Your task to perform on an android device: Check the weather Image 0: 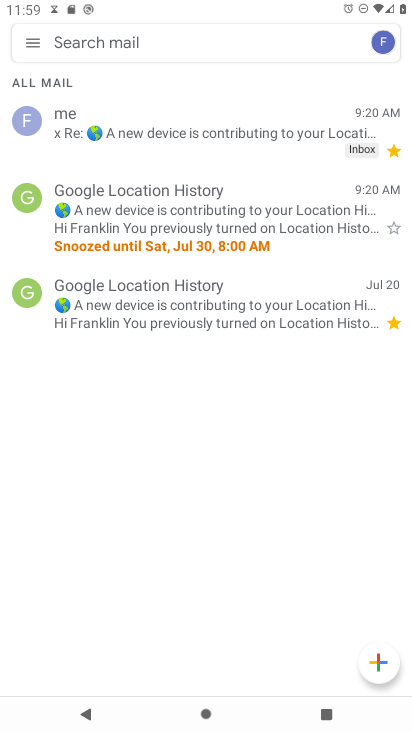
Step 0: press home button
Your task to perform on an android device: Check the weather Image 1: 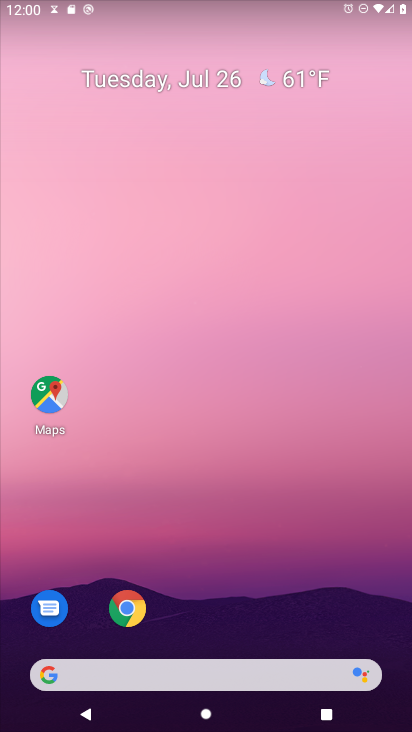
Step 1: click (127, 605)
Your task to perform on an android device: Check the weather Image 2: 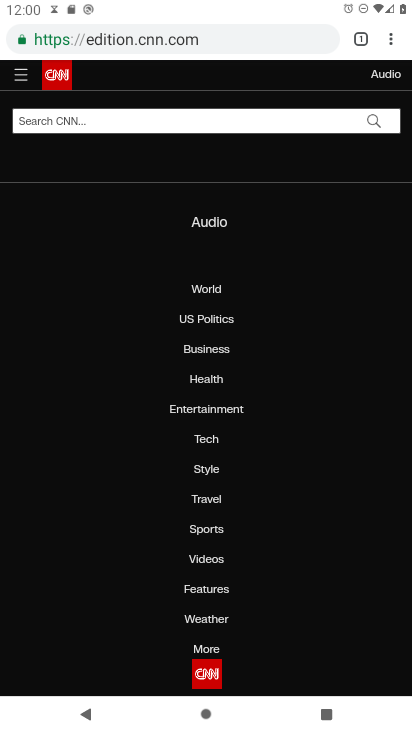
Step 2: click (235, 33)
Your task to perform on an android device: Check the weather Image 3: 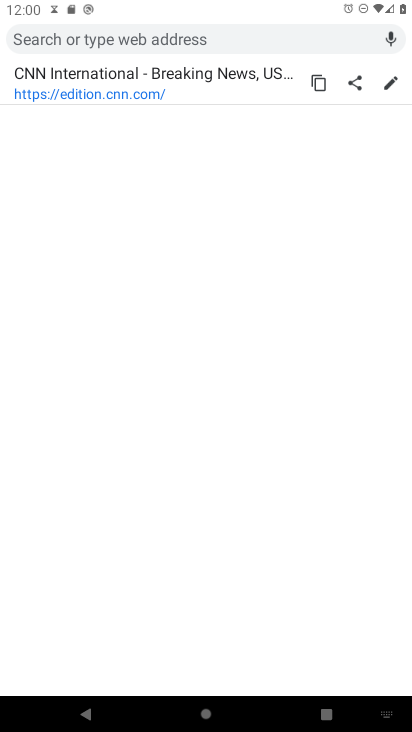
Step 3: type "weather"
Your task to perform on an android device: Check the weather Image 4: 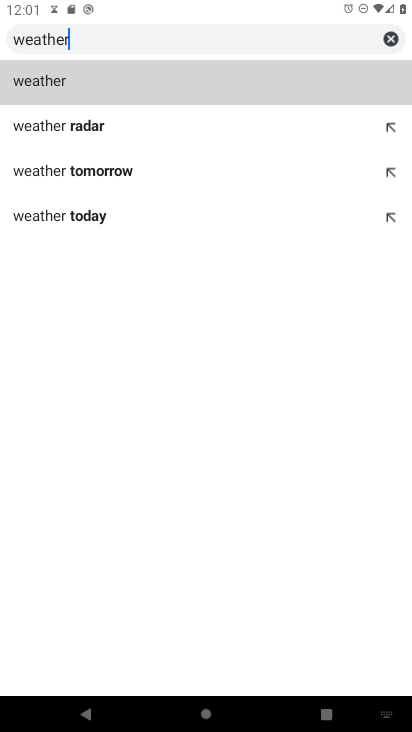
Step 4: click (49, 80)
Your task to perform on an android device: Check the weather Image 5: 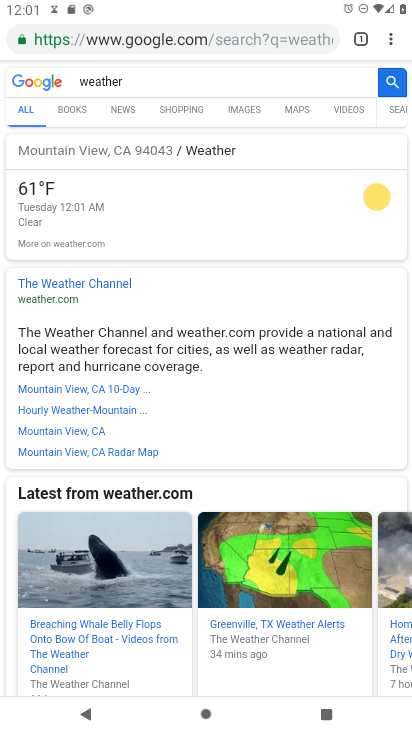
Step 5: task complete